Your task to perform on an android device: Go to ESPN.com Image 0: 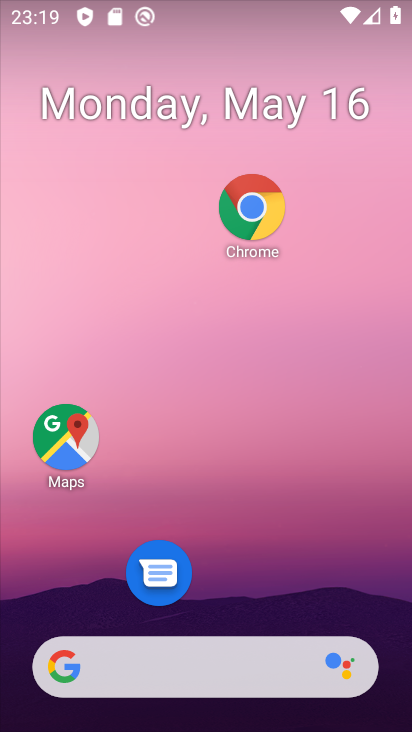
Step 0: drag from (281, 605) to (301, 8)
Your task to perform on an android device: Go to ESPN.com Image 1: 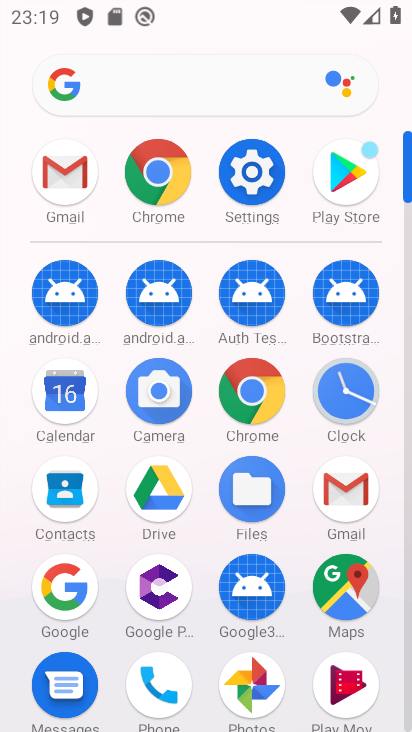
Step 1: click (234, 383)
Your task to perform on an android device: Go to ESPN.com Image 2: 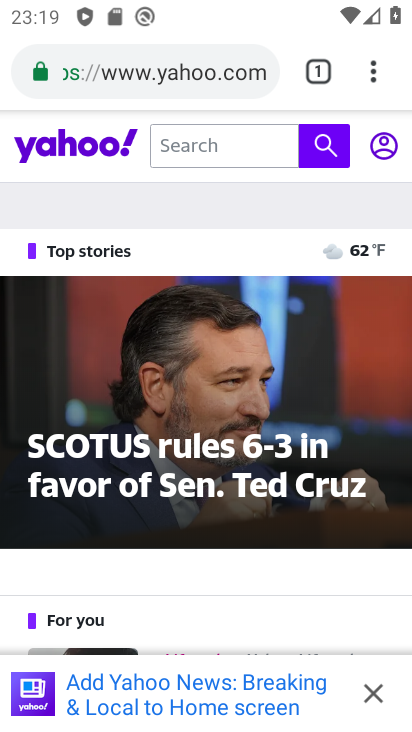
Step 2: click (182, 78)
Your task to perform on an android device: Go to ESPN.com Image 3: 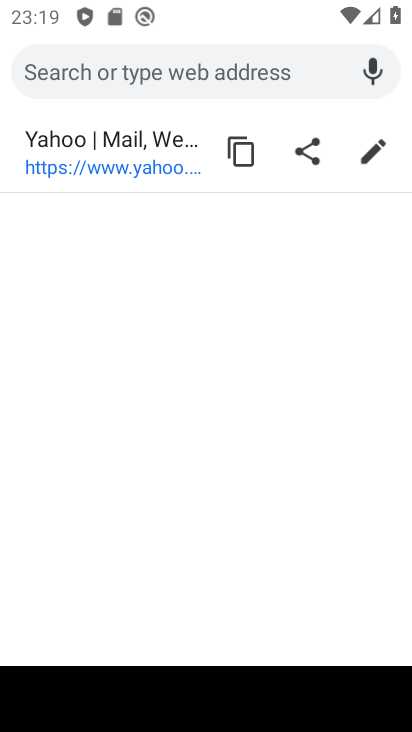
Step 3: type "espn.com"
Your task to perform on an android device: Go to ESPN.com Image 4: 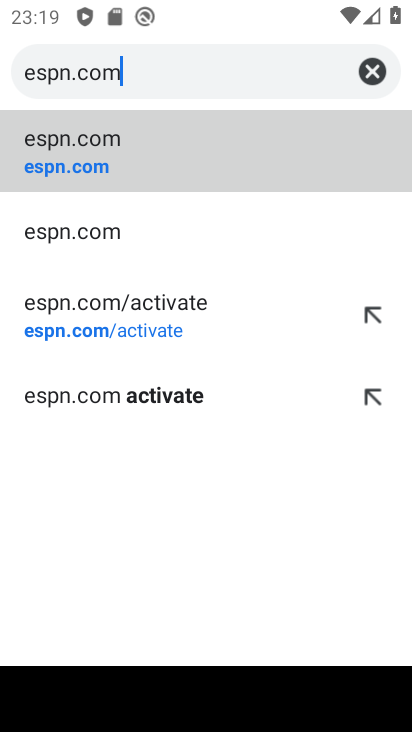
Step 4: click (91, 143)
Your task to perform on an android device: Go to ESPN.com Image 5: 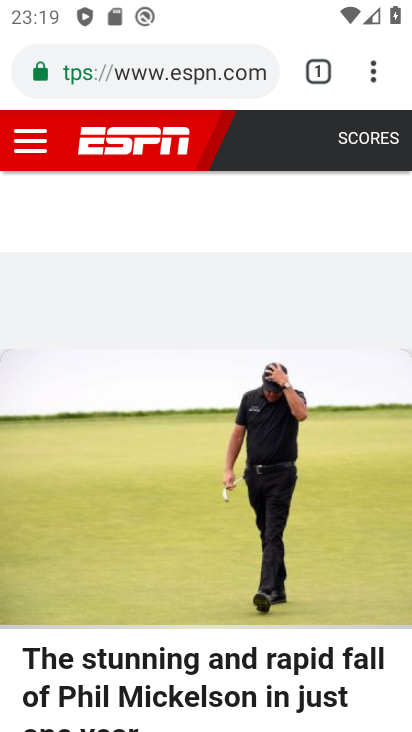
Step 5: task complete